Your task to perform on an android device: change notifications settings Image 0: 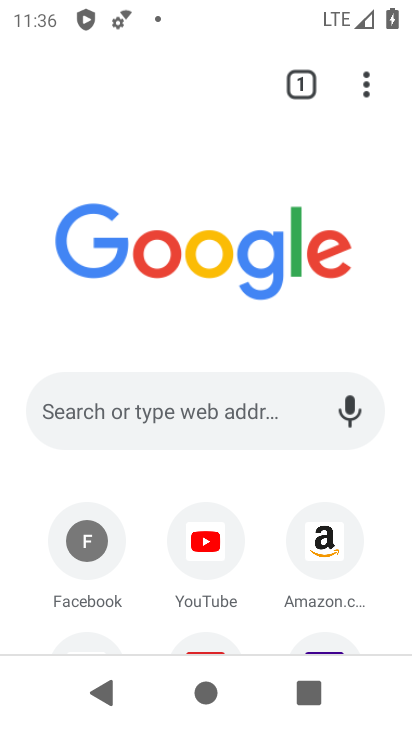
Step 0: press home button
Your task to perform on an android device: change notifications settings Image 1: 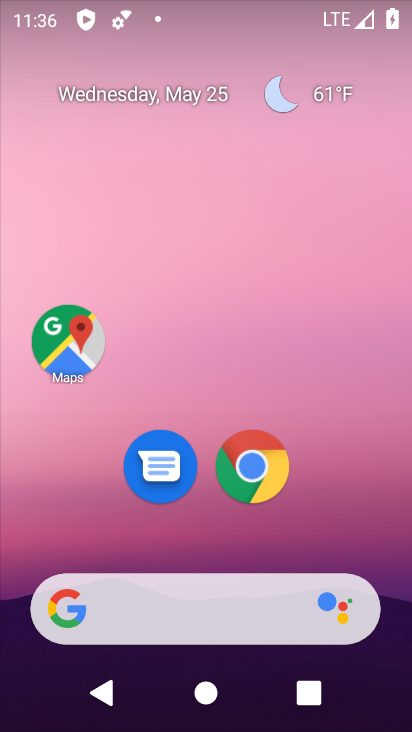
Step 1: drag from (216, 547) to (257, 0)
Your task to perform on an android device: change notifications settings Image 2: 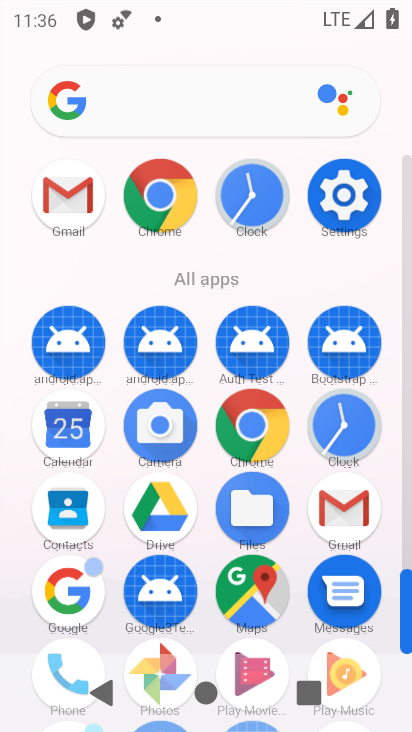
Step 2: click (355, 211)
Your task to perform on an android device: change notifications settings Image 3: 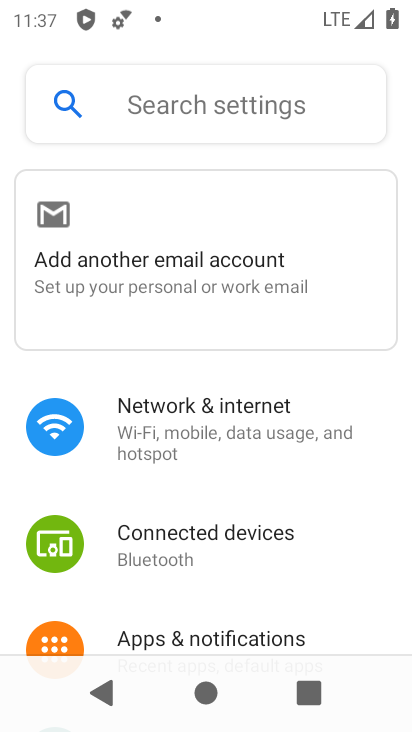
Step 3: drag from (220, 535) to (253, 313)
Your task to perform on an android device: change notifications settings Image 4: 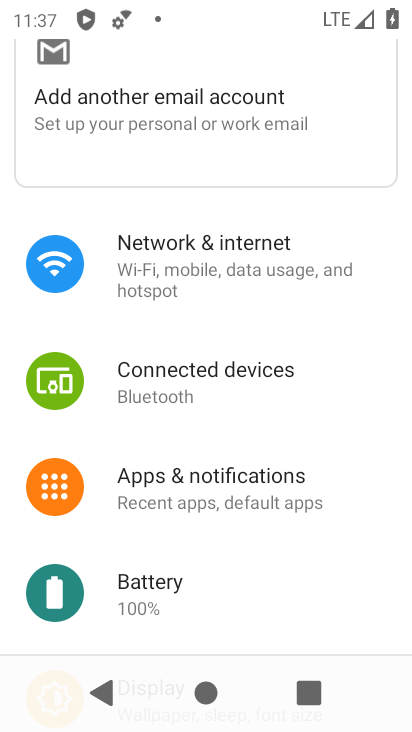
Step 4: click (200, 492)
Your task to perform on an android device: change notifications settings Image 5: 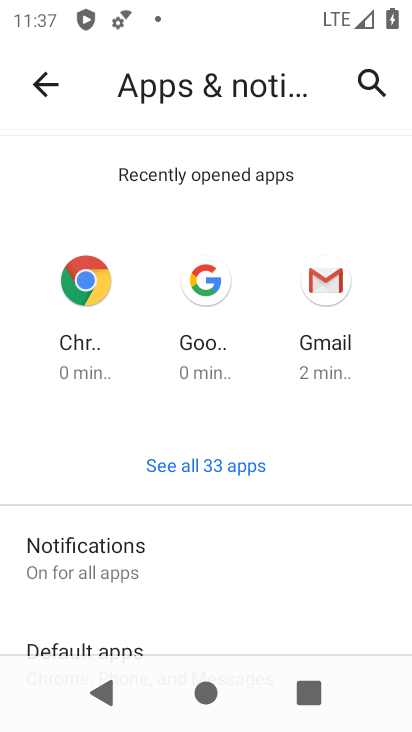
Step 5: click (151, 553)
Your task to perform on an android device: change notifications settings Image 6: 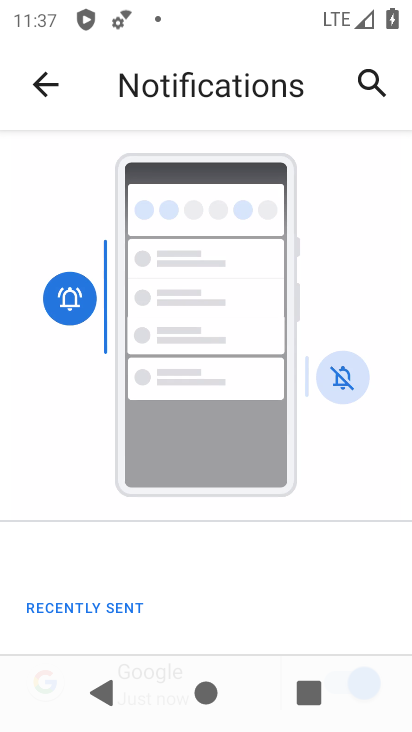
Step 6: drag from (70, 608) to (154, 242)
Your task to perform on an android device: change notifications settings Image 7: 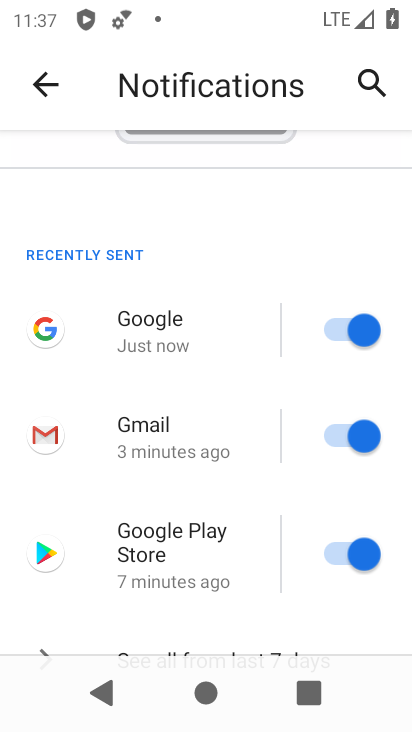
Step 7: drag from (154, 499) to (201, 215)
Your task to perform on an android device: change notifications settings Image 8: 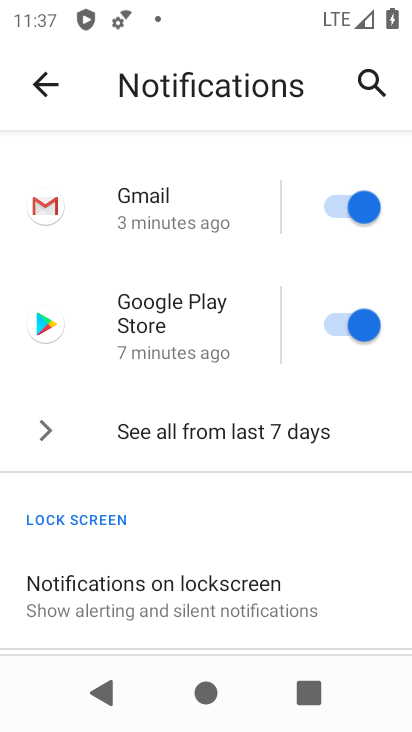
Step 8: click (155, 437)
Your task to perform on an android device: change notifications settings Image 9: 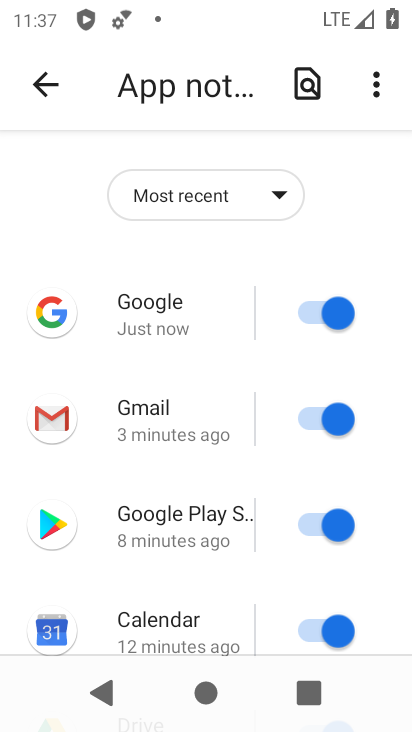
Step 9: click (328, 302)
Your task to perform on an android device: change notifications settings Image 10: 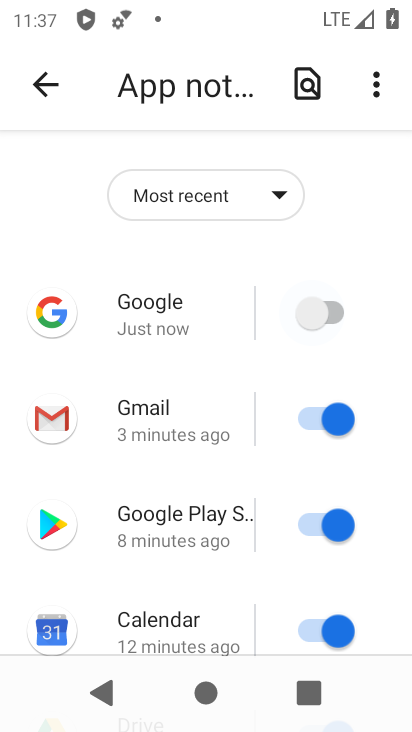
Step 10: click (294, 411)
Your task to perform on an android device: change notifications settings Image 11: 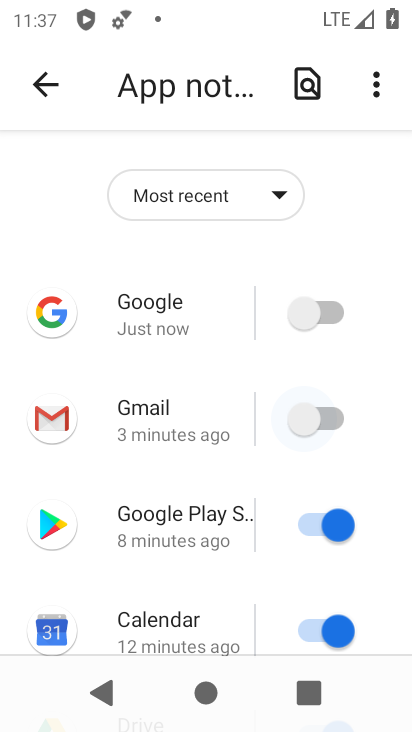
Step 11: click (284, 535)
Your task to perform on an android device: change notifications settings Image 12: 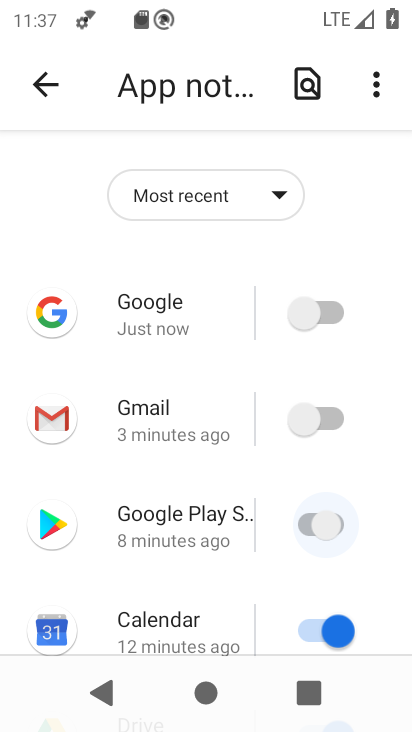
Step 12: drag from (206, 565) to (252, 162)
Your task to perform on an android device: change notifications settings Image 13: 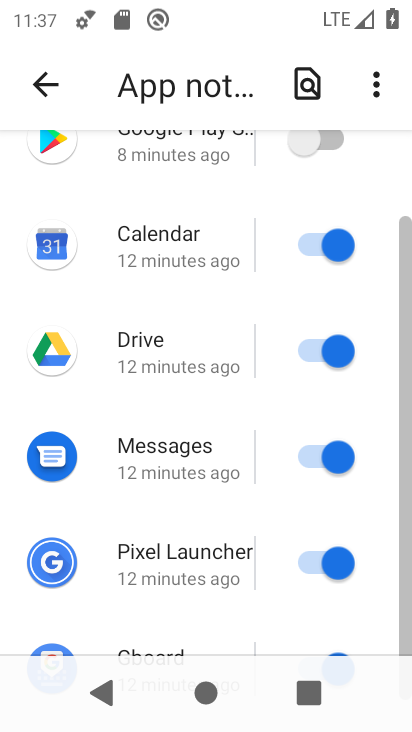
Step 13: click (293, 232)
Your task to perform on an android device: change notifications settings Image 14: 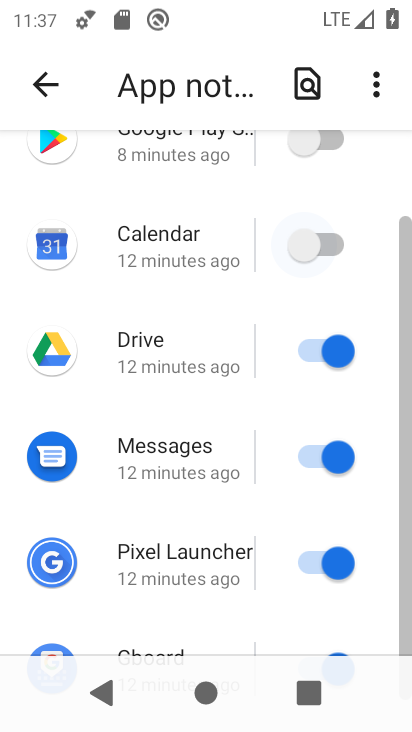
Step 14: click (290, 354)
Your task to perform on an android device: change notifications settings Image 15: 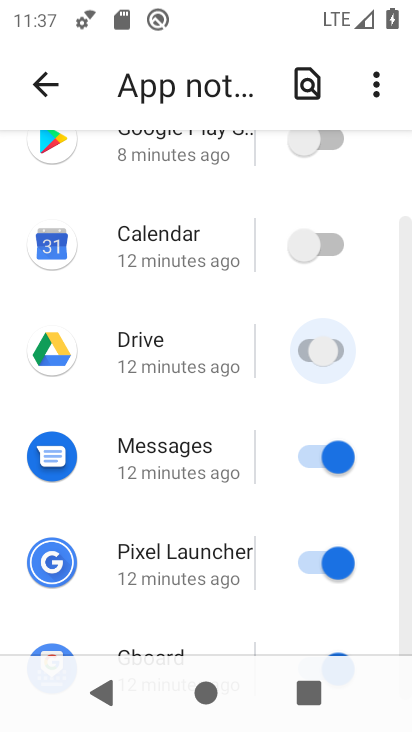
Step 15: click (279, 470)
Your task to perform on an android device: change notifications settings Image 16: 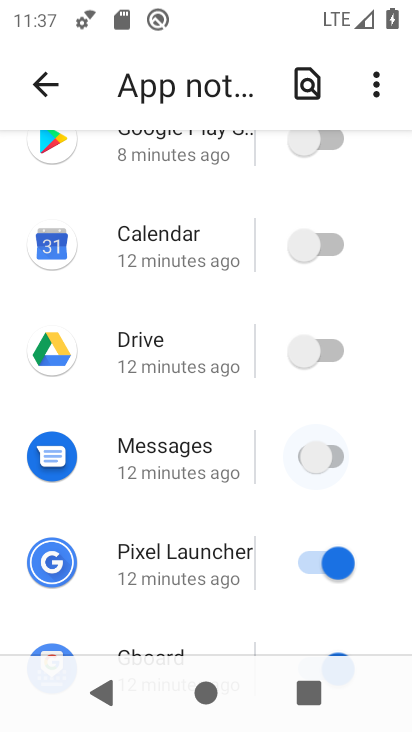
Step 16: click (287, 578)
Your task to perform on an android device: change notifications settings Image 17: 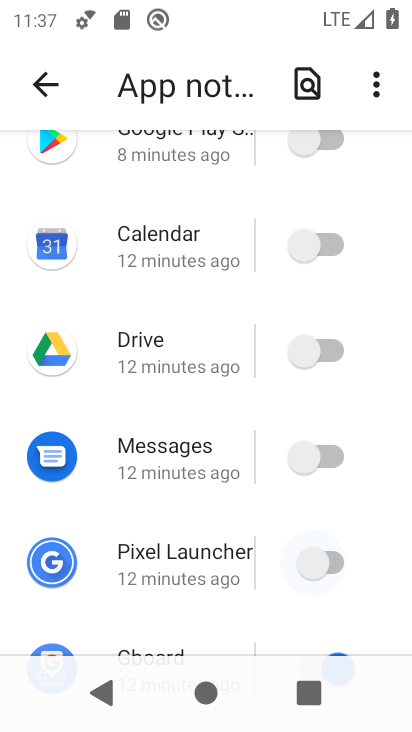
Step 17: drag from (287, 577) to (334, 139)
Your task to perform on an android device: change notifications settings Image 18: 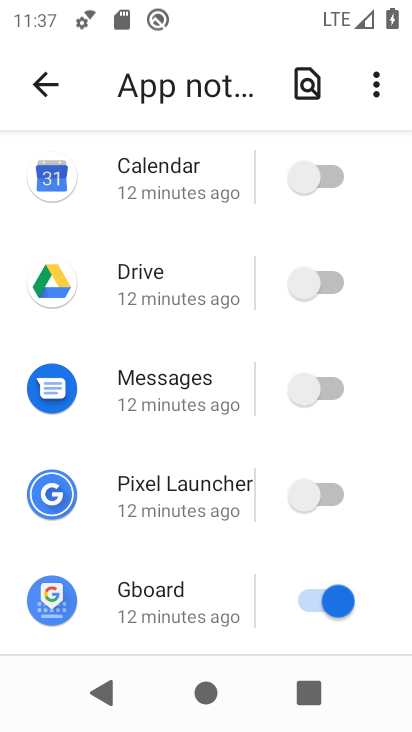
Step 18: click (289, 582)
Your task to perform on an android device: change notifications settings Image 19: 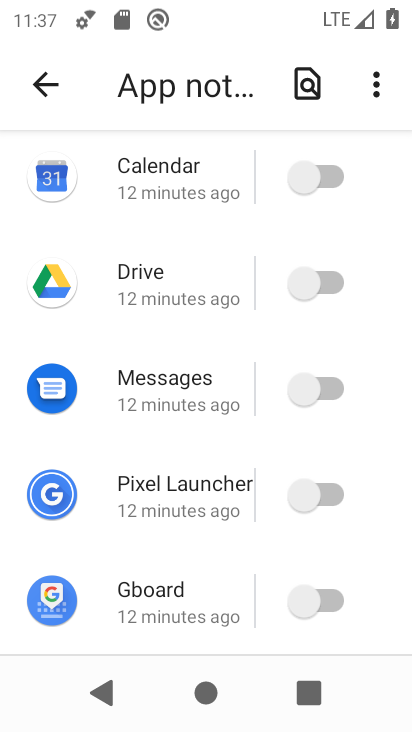
Step 19: task complete